Your task to perform on an android device: check storage Image 0: 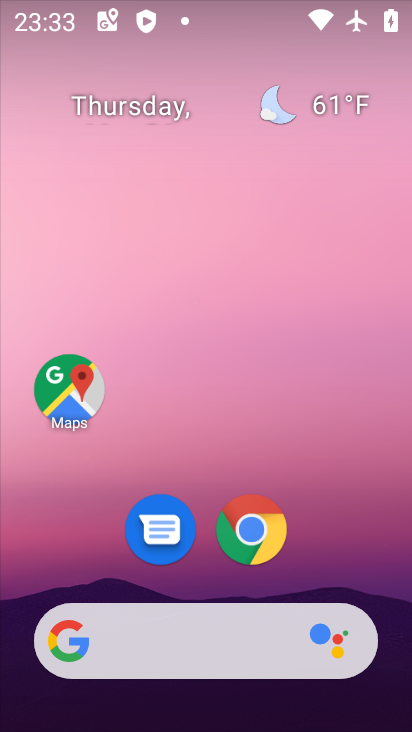
Step 0: drag from (356, 550) to (344, 25)
Your task to perform on an android device: check storage Image 1: 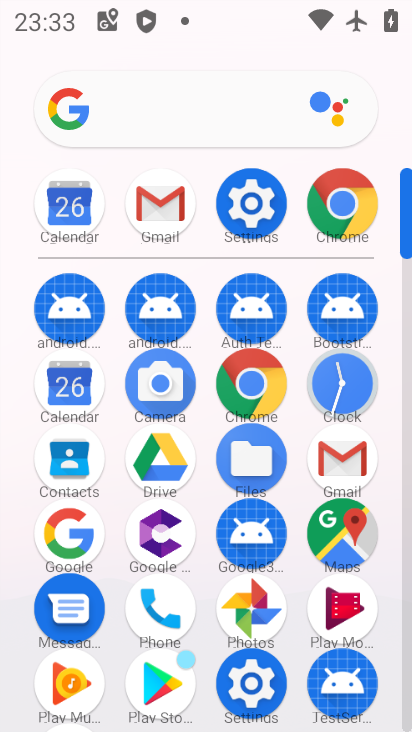
Step 1: click (249, 201)
Your task to perform on an android device: check storage Image 2: 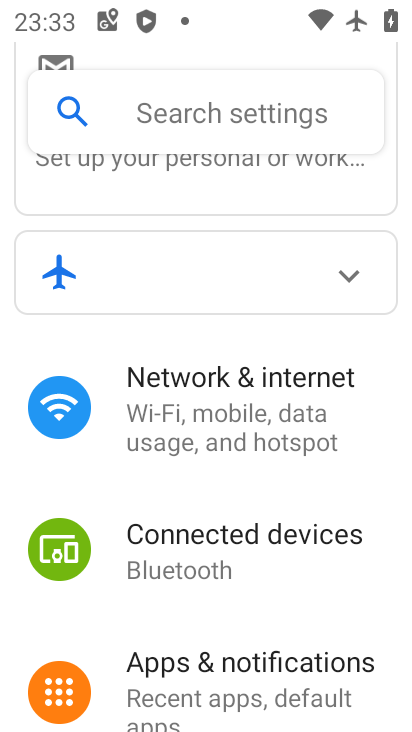
Step 2: drag from (206, 639) to (221, 271)
Your task to perform on an android device: check storage Image 3: 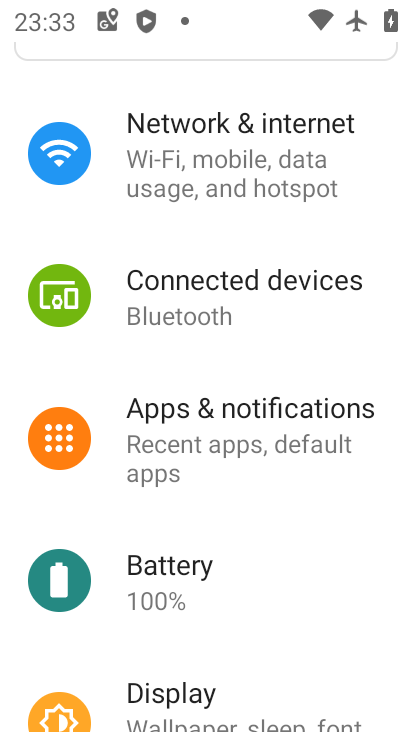
Step 3: drag from (232, 640) to (257, 258)
Your task to perform on an android device: check storage Image 4: 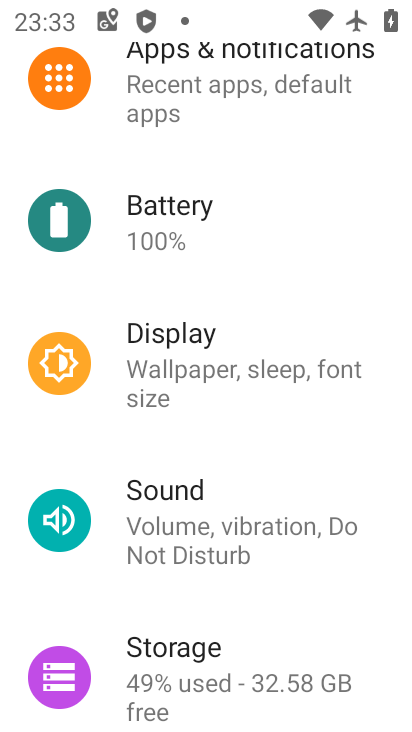
Step 4: click (188, 667)
Your task to perform on an android device: check storage Image 5: 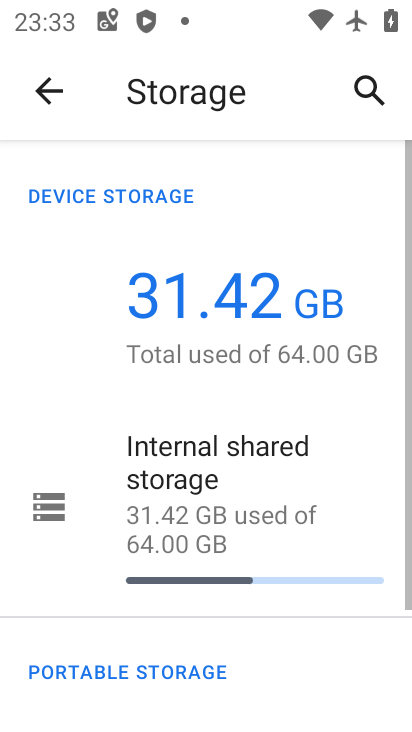
Step 5: task complete